Your task to perform on an android device: manage bookmarks in the chrome app Image 0: 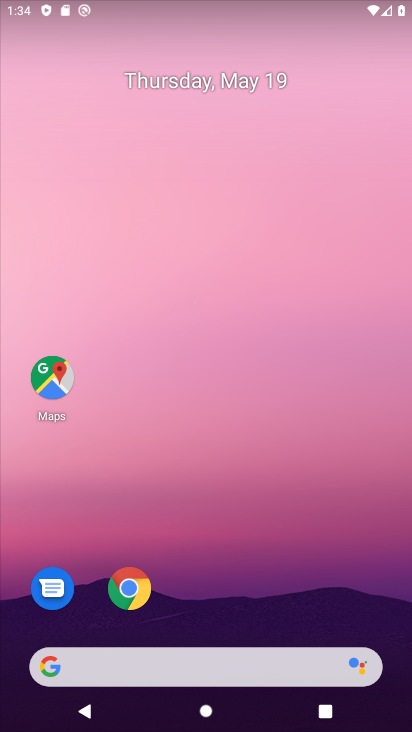
Step 0: click (126, 587)
Your task to perform on an android device: manage bookmarks in the chrome app Image 1: 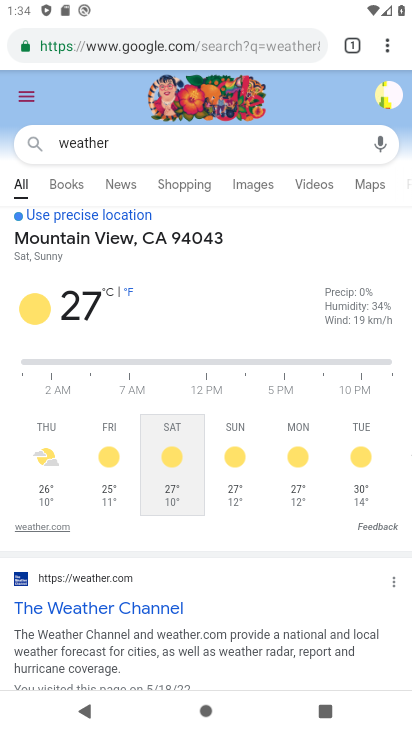
Step 1: drag from (389, 43) to (223, 176)
Your task to perform on an android device: manage bookmarks in the chrome app Image 2: 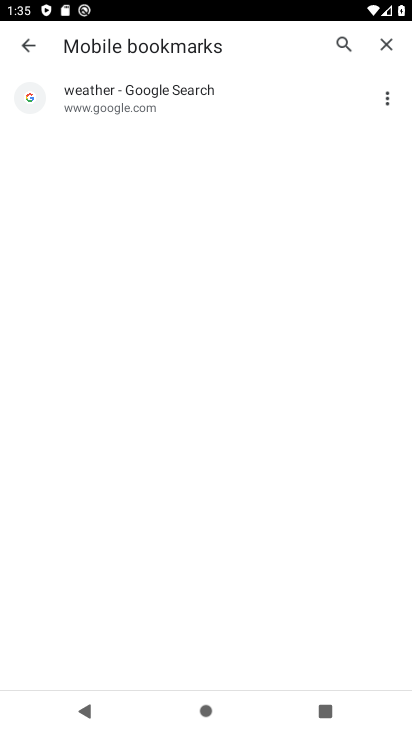
Step 2: click (385, 97)
Your task to perform on an android device: manage bookmarks in the chrome app Image 3: 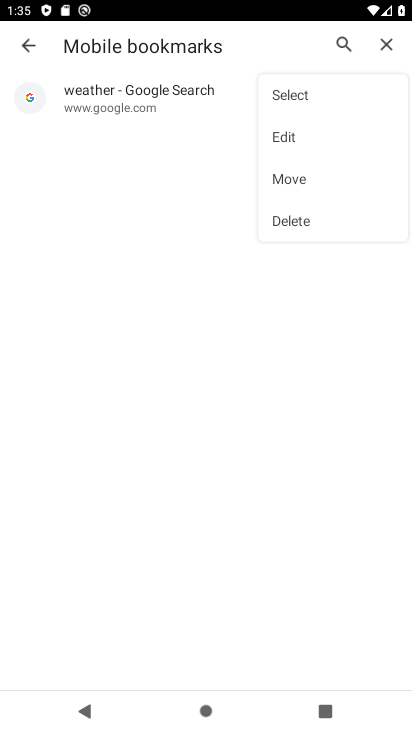
Step 3: click (286, 222)
Your task to perform on an android device: manage bookmarks in the chrome app Image 4: 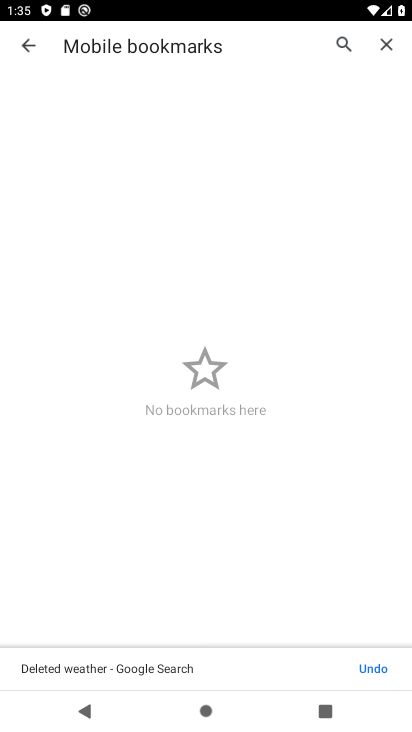
Step 4: task complete